Your task to perform on an android device: check out phone information Image 0: 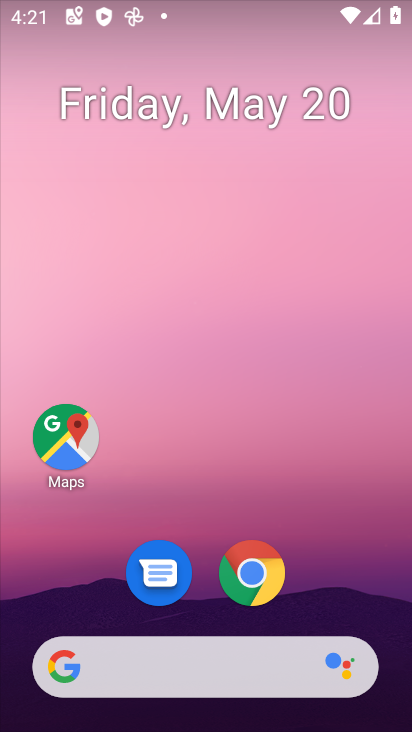
Step 0: drag from (386, 638) to (363, 143)
Your task to perform on an android device: check out phone information Image 1: 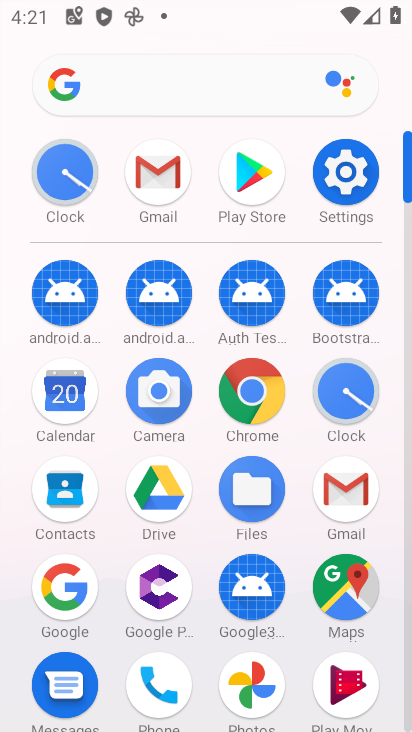
Step 1: click (408, 703)
Your task to perform on an android device: check out phone information Image 2: 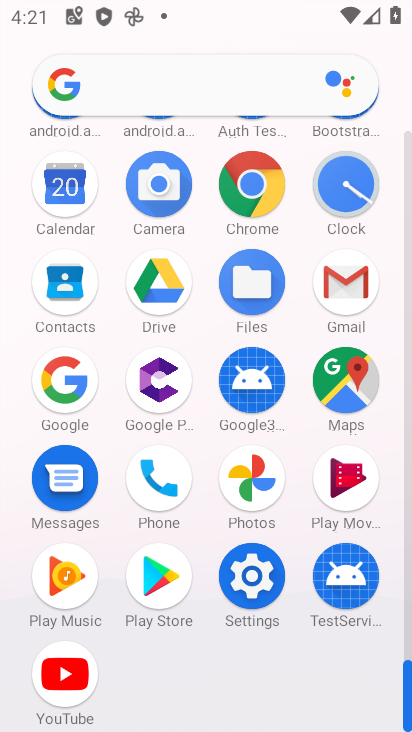
Step 2: click (254, 570)
Your task to perform on an android device: check out phone information Image 3: 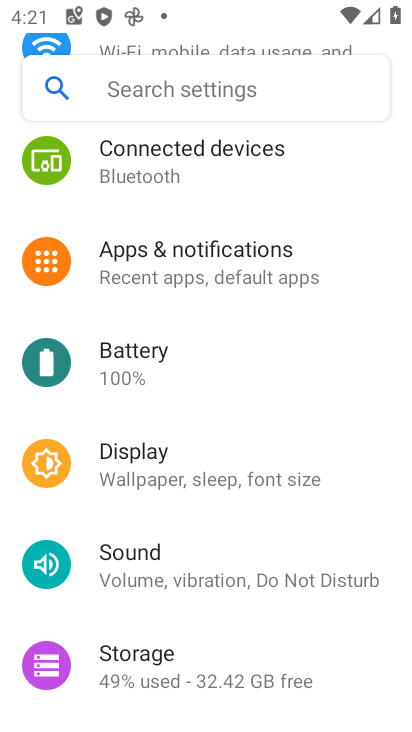
Step 3: drag from (359, 648) to (333, 154)
Your task to perform on an android device: check out phone information Image 4: 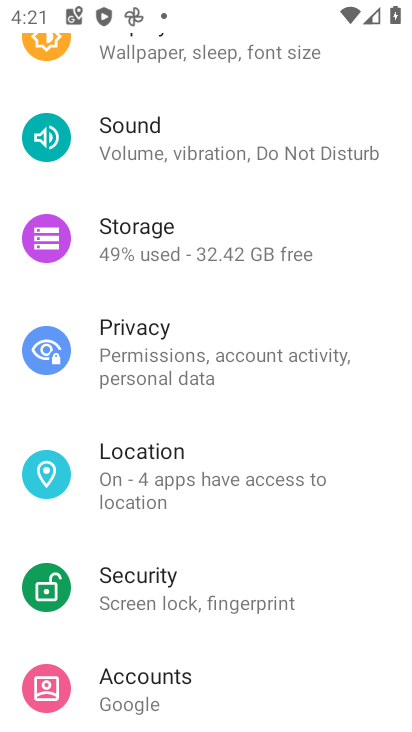
Step 4: drag from (334, 635) to (368, 155)
Your task to perform on an android device: check out phone information Image 5: 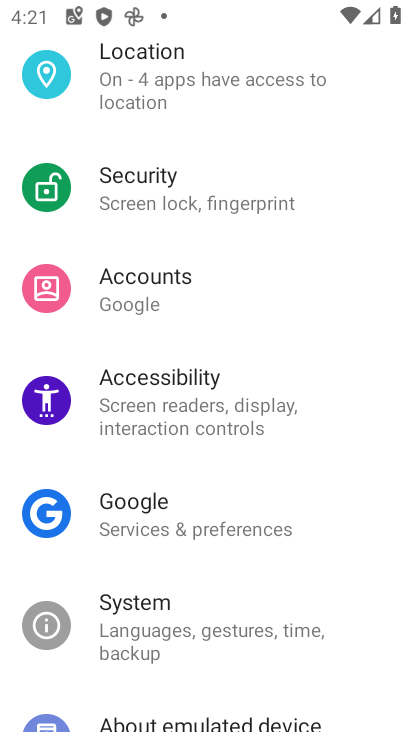
Step 5: drag from (372, 648) to (356, 224)
Your task to perform on an android device: check out phone information Image 6: 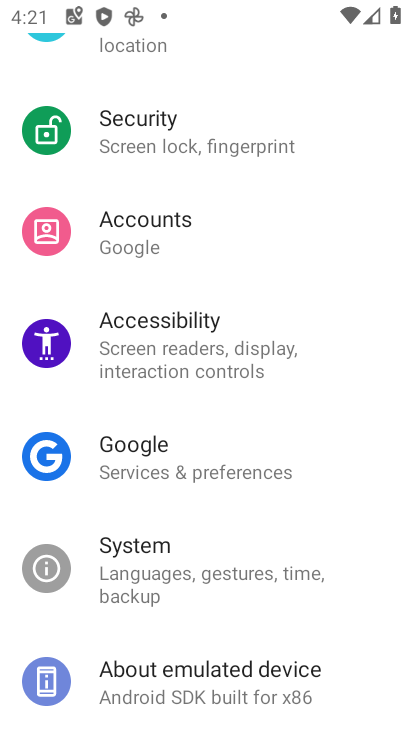
Step 6: click (157, 671)
Your task to perform on an android device: check out phone information Image 7: 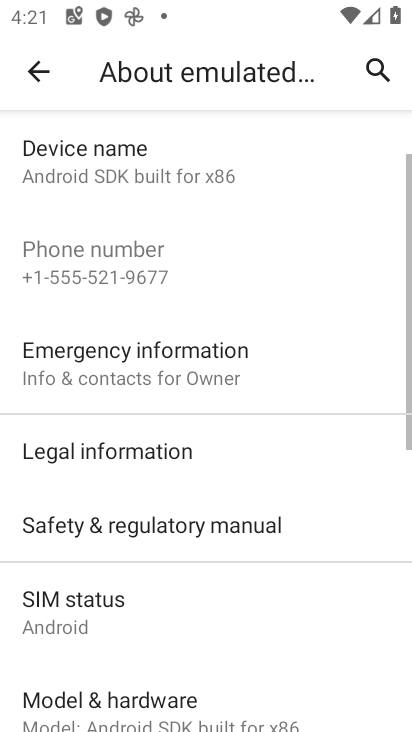
Step 7: task complete